Your task to perform on an android device: Go to internet settings Image 0: 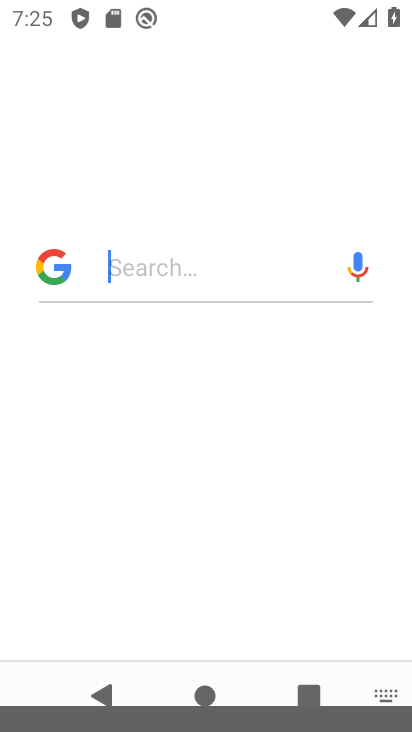
Step 0: press home button
Your task to perform on an android device: Go to internet settings Image 1: 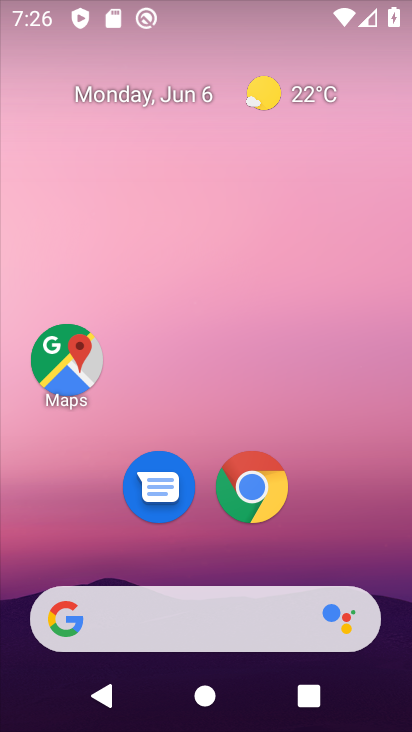
Step 1: drag from (385, 633) to (294, 49)
Your task to perform on an android device: Go to internet settings Image 2: 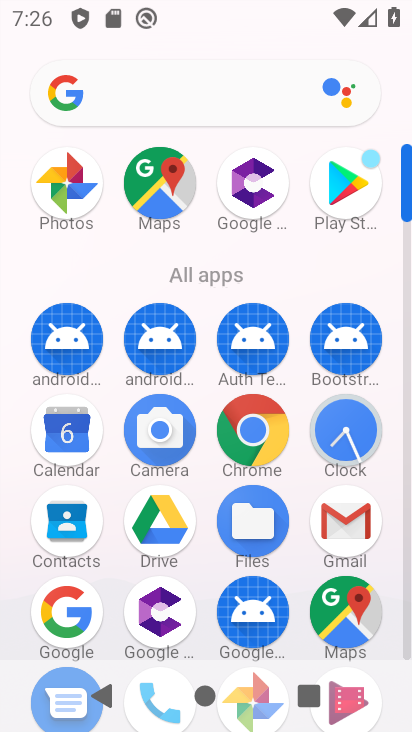
Step 2: drag from (303, 608) to (296, 204)
Your task to perform on an android device: Go to internet settings Image 3: 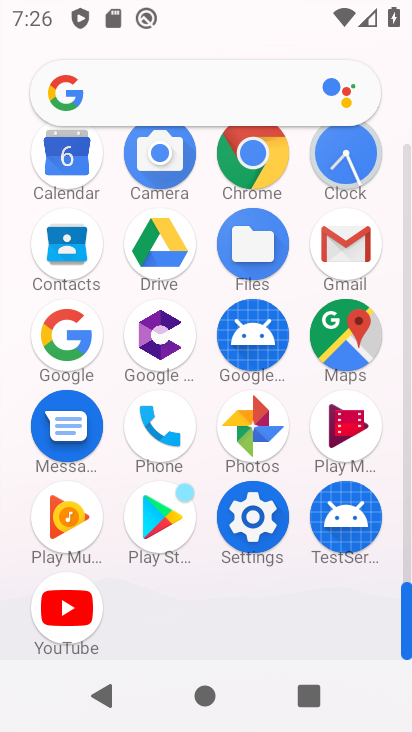
Step 3: click (240, 515)
Your task to perform on an android device: Go to internet settings Image 4: 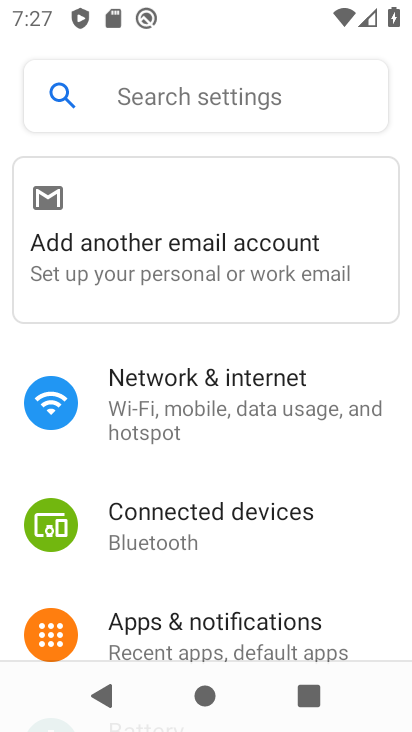
Step 4: click (108, 399)
Your task to perform on an android device: Go to internet settings Image 5: 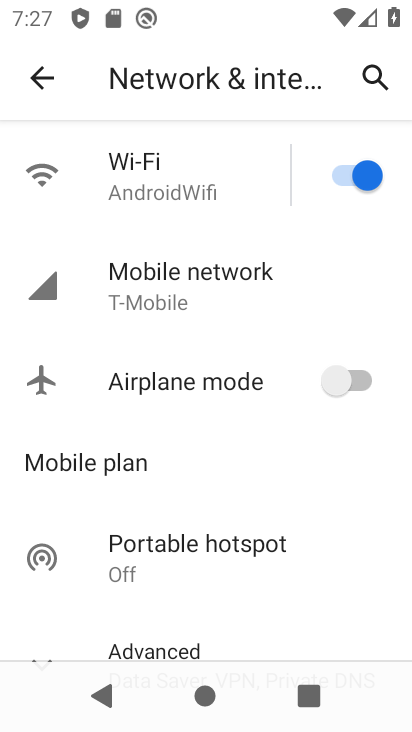
Step 5: task complete